Your task to perform on an android device: Open Google Chrome and open the bookmarks view Image 0: 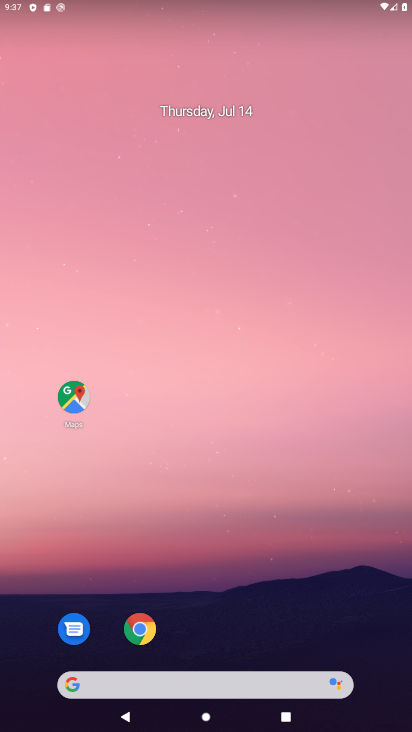
Step 0: click (139, 625)
Your task to perform on an android device: Open Google Chrome and open the bookmarks view Image 1: 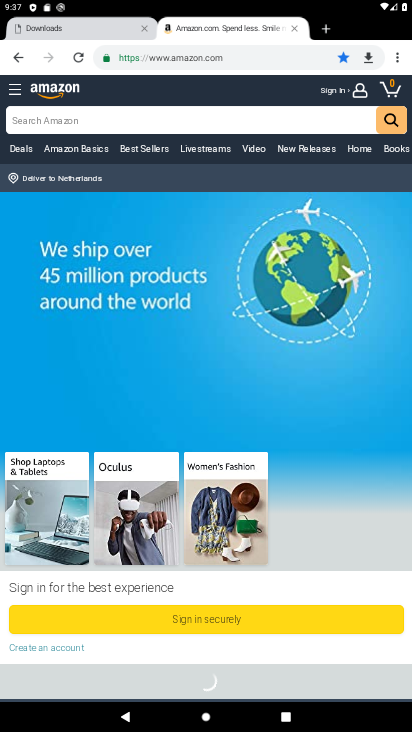
Step 1: click (398, 56)
Your task to perform on an android device: Open Google Chrome and open the bookmarks view Image 2: 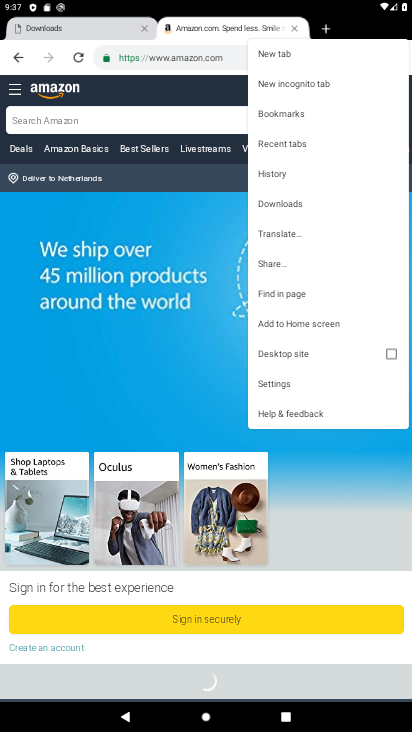
Step 2: click (284, 115)
Your task to perform on an android device: Open Google Chrome and open the bookmarks view Image 3: 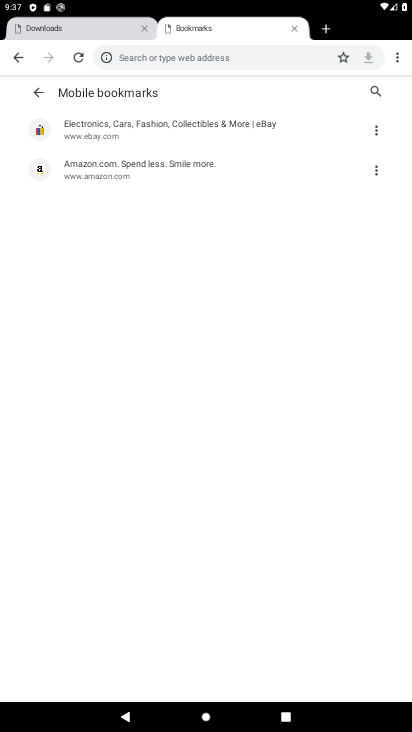
Step 3: click (114, 132)
Your task to perform on an android device: Open Google Chrome and open the bookmarks view Image 4: 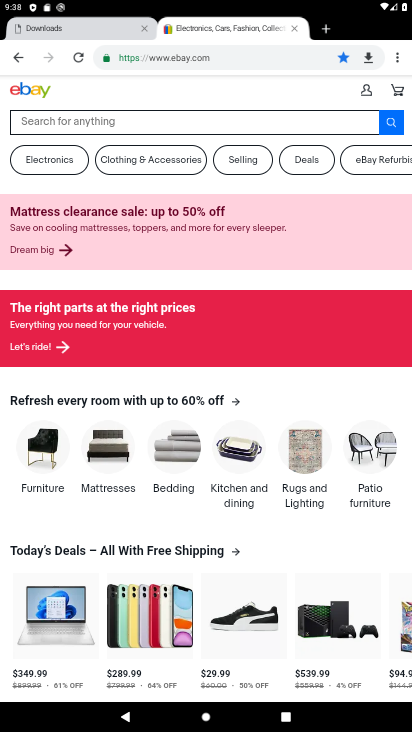
Step 4: task complete